Your task to perform on an android device: move an email to a new category in the gmail app Image 0: 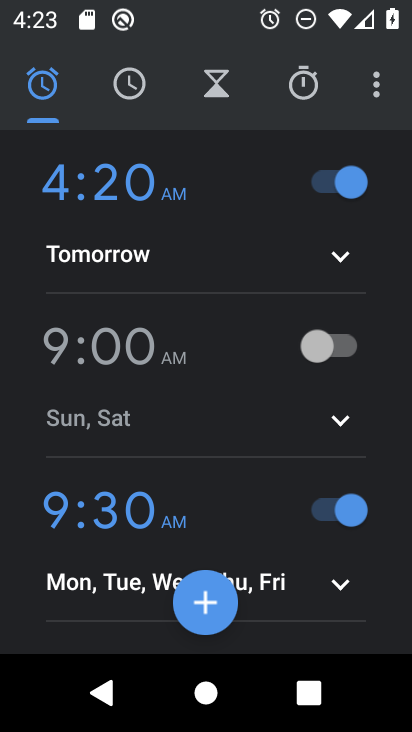
Step 0: press home button
Your task to perform on an android device: move an email to a new category in the gmail app Image 1: 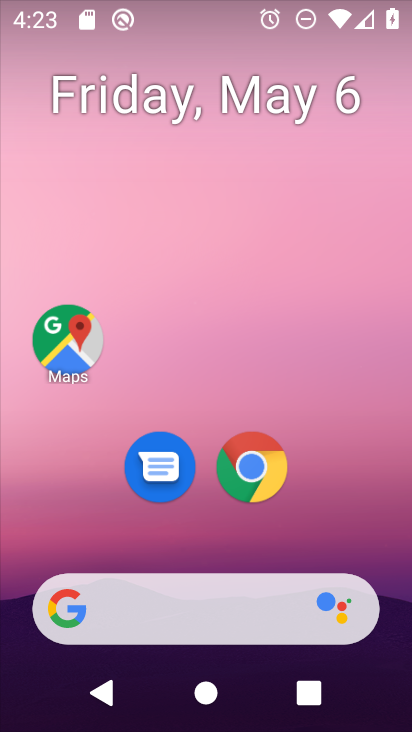
Step 1: drag from (322, 556) to (285, 156)
Your task to perform on an android device: move an email to a new category in the gmail app Image 2: 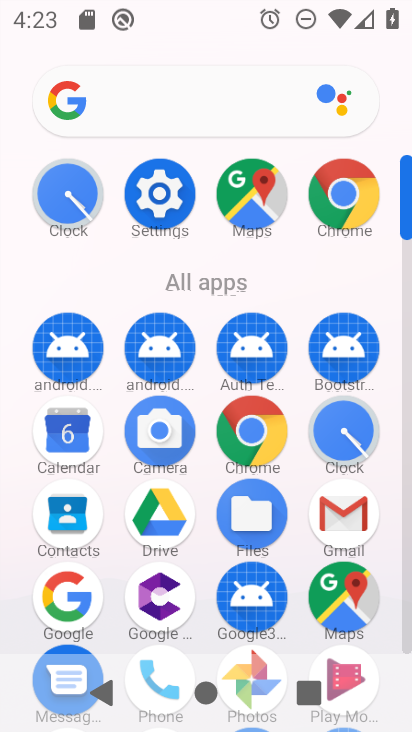
Step 2: click (373, 531)
Your task to perform on an android device: move an email to a new category in the gmail app Image 3: 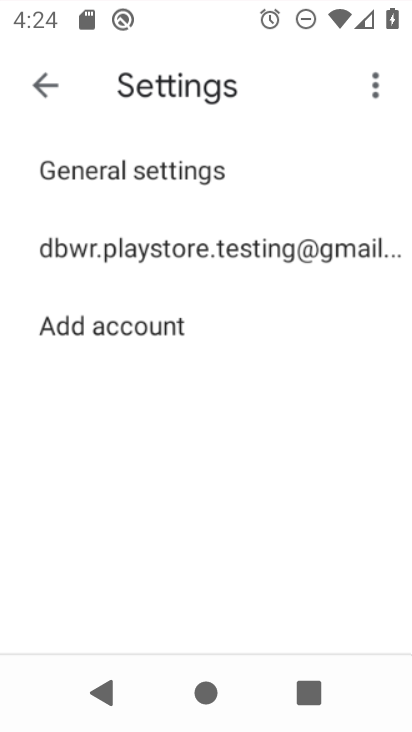
Step 3: click (344, 518)
Your task to perform on an android device: move an email to a new category in the gmail app Image 4: 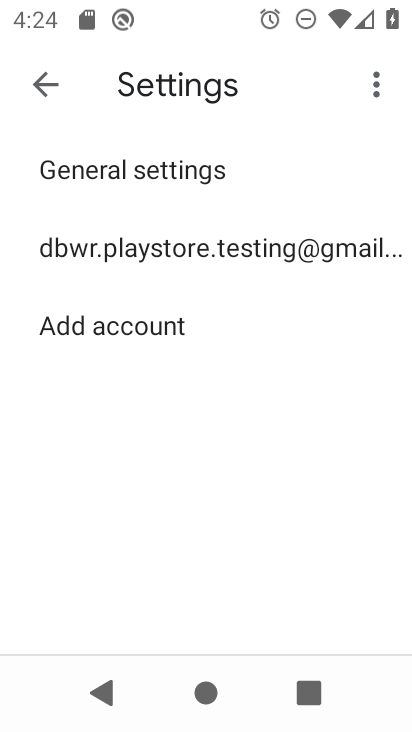
Step 4: click (163, 234)
Your task to perform on an android device: move an email to a new category in the gmail app Image 5: 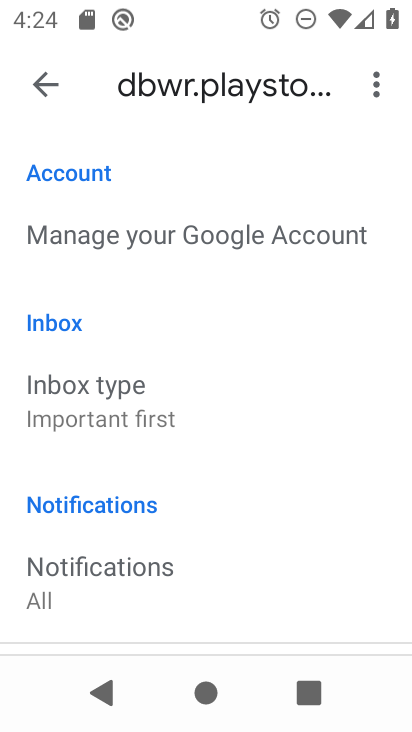
Step 5: drag from (217, 561) to (268, 177)
Your task to perform on an android device: move an email to a new category in the gmail app Image 6: 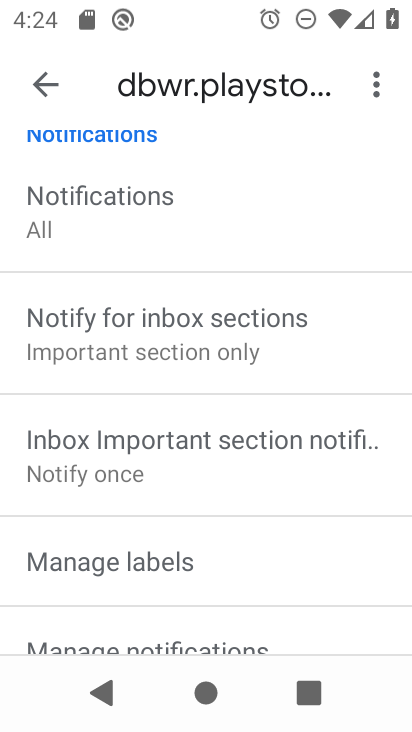
Step 6: drag from (198, 574) to (262, 222)
Your task to perform on an android device: move an email to a new category in the gmail app Image 7: 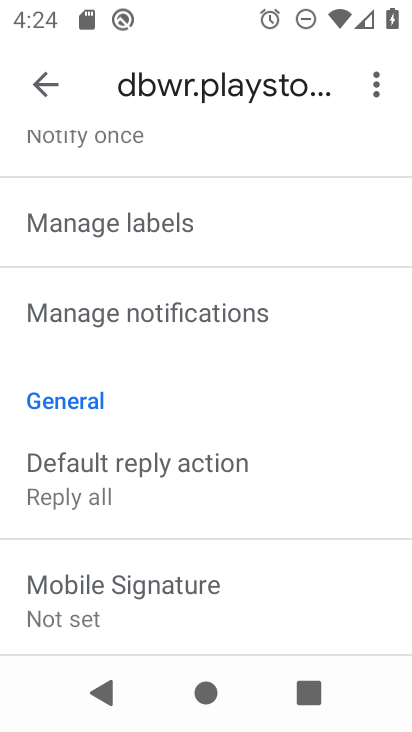
Step 7: click (56, 86)
Your task to perform on an android device: move an email to a new category in the gmail app Image 8: 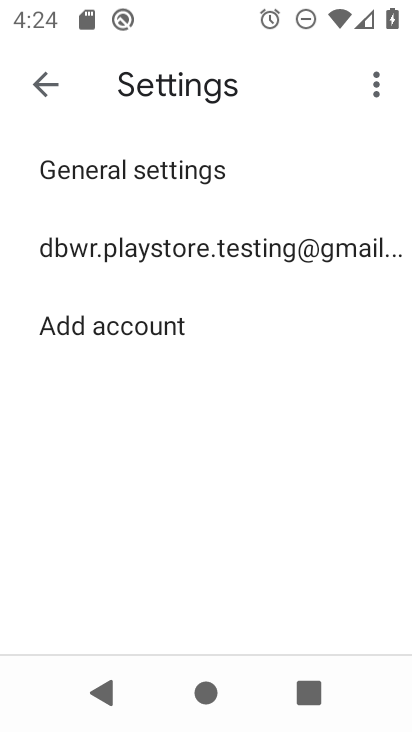
Step 8: click (39, 88)
Your task to perform on an android device: move an email to a new category in the gmail app Image 9: 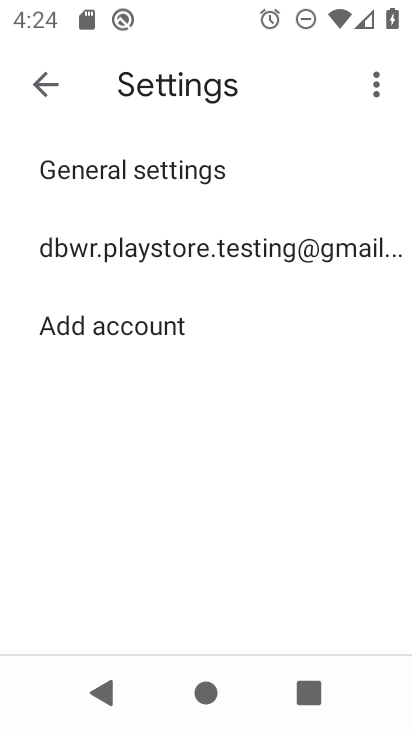
Step 9: click (42, 88)
Your task to perform on an android device: move an email to a new category in the gmail app Image 10: 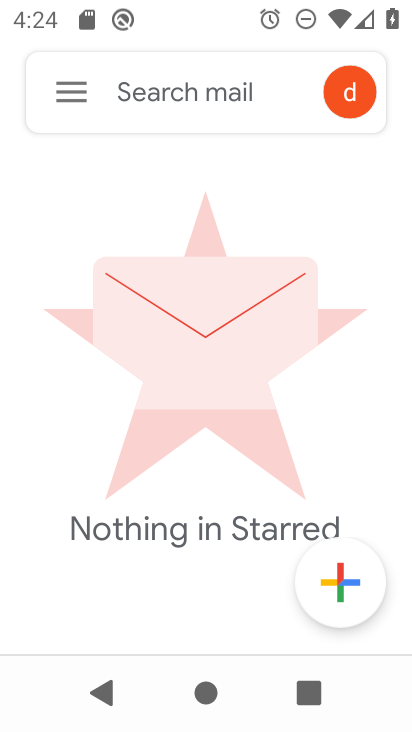
Step 10: click (64, 98)
Your task to perform on an android device: move an email to a new category in the gmail app Image 11: 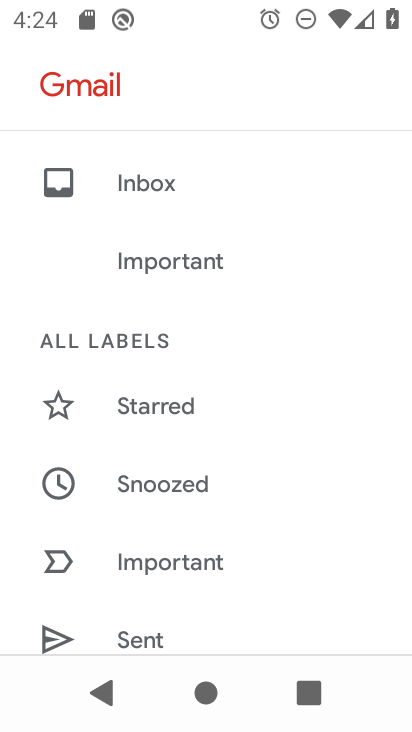
Step 11: drag from (189, 520) to (238, 205)
Your task to perform on an android device: move an email to a new category in the gmail app Image 12: 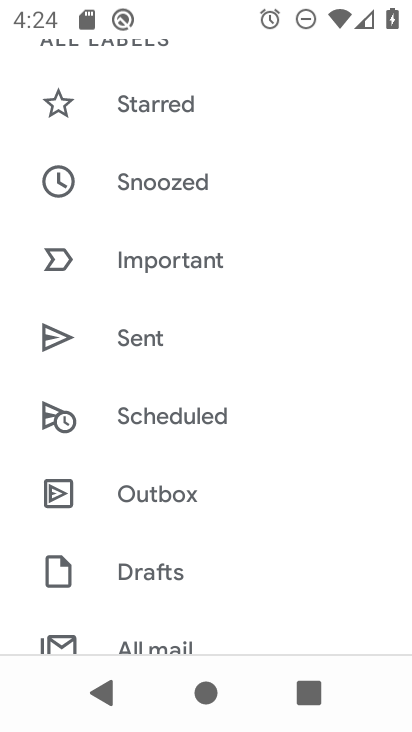
Step 12: drag from (190, 521) to (207, 265)
Your task to perform on an android device: move an email to a new category in the gmail app Image 13: 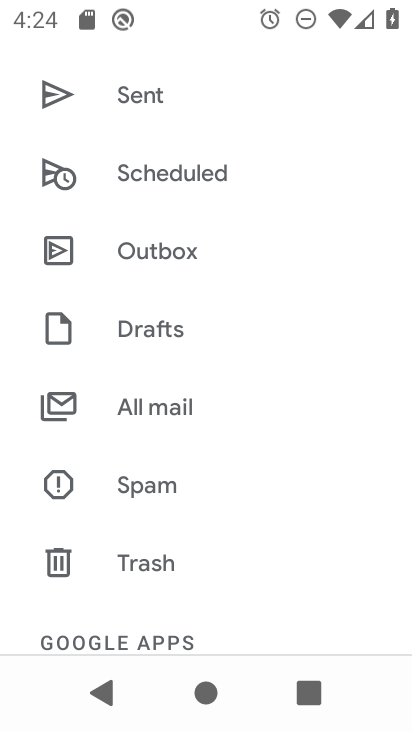
Step 13: click (149, 409)
Your task to perform on an android device: move an email to a new category in the gmail app Image 14: 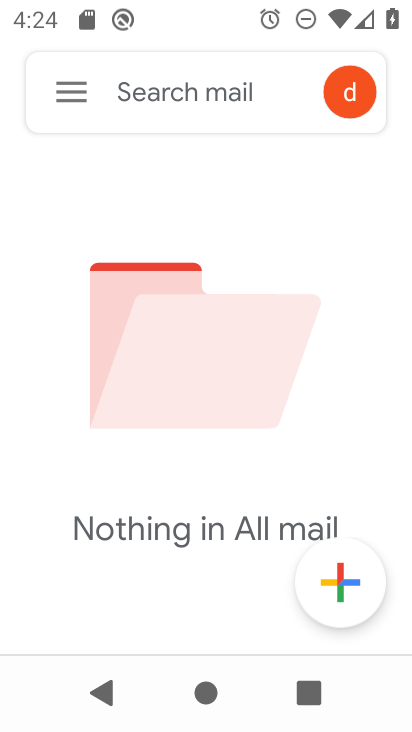
Step 14: task complete